Your task to perform on an android device: open device folders in google photos Image 0: 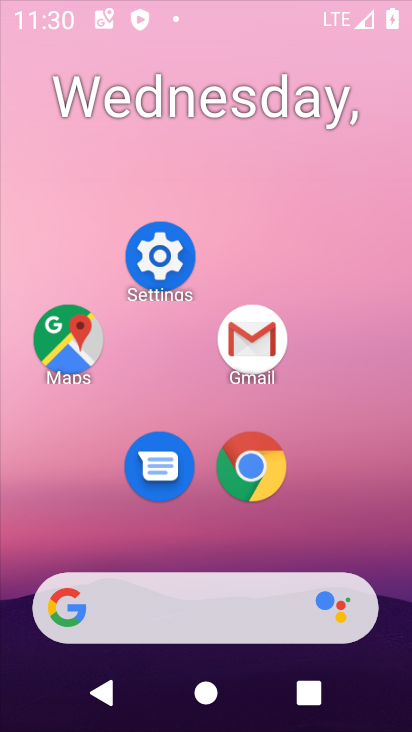
Step 0: click (265, 194)
Your task to perform on an android device: open device folders in google photos Image 1: 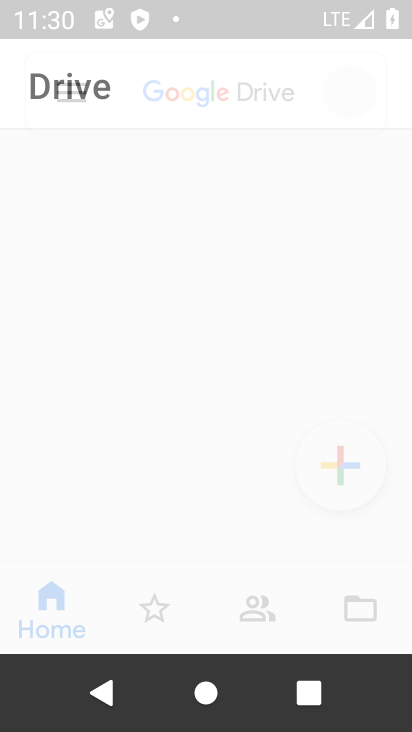
Step 1: click (166, 258)
Your task to perform on an android device: open device folders in google photos Image 2: 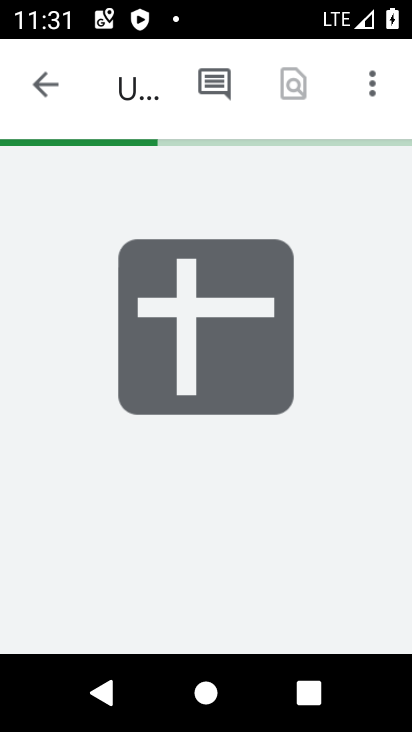
Step 2: press home button
Your task to perform on an android device: open device folders in google photos Image 3: 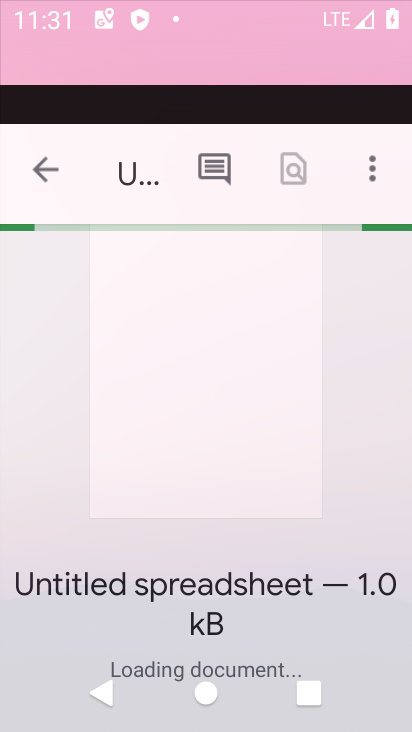
Step 3: drag from (223, 612) to (350, 240)
Your task to perform on an android device: open device folders in google photos Image 4: 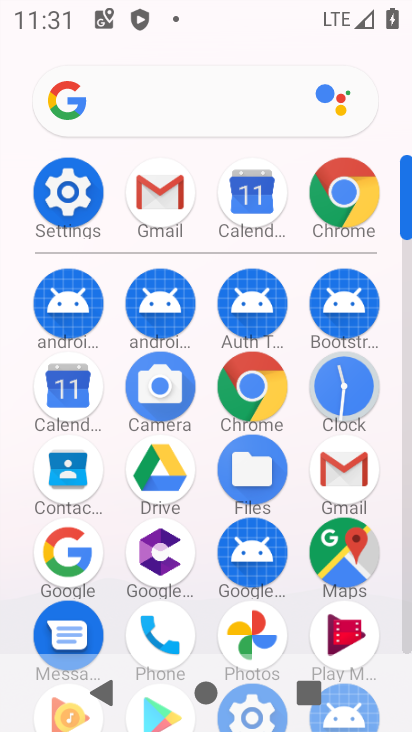
Step 4: drag from (202, 598) to (190, 241)
Your task to perform on an android device: open device folders in google photos Image 5: 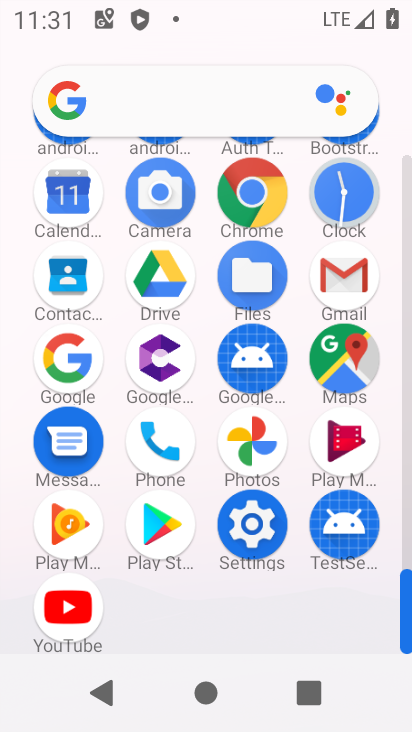
Step 5: click (248, 452)
Your task to perform on an android device: open device folders in google photos Image 6: 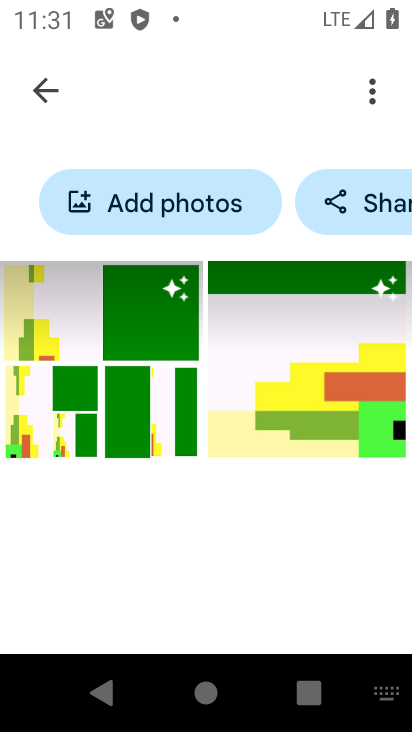
Step 6: click (63, 103)
Your task to perform on an android device: open device folders in google photos Image 7: 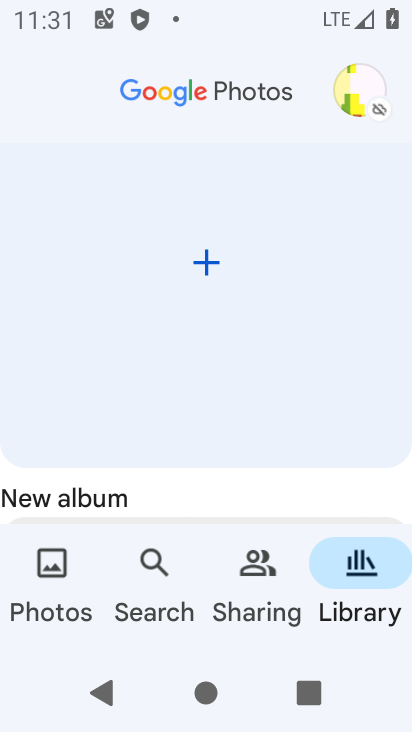
Step 7: click (374, 582)
Your task to perform on an android device: open device folders in google photos Image 8: 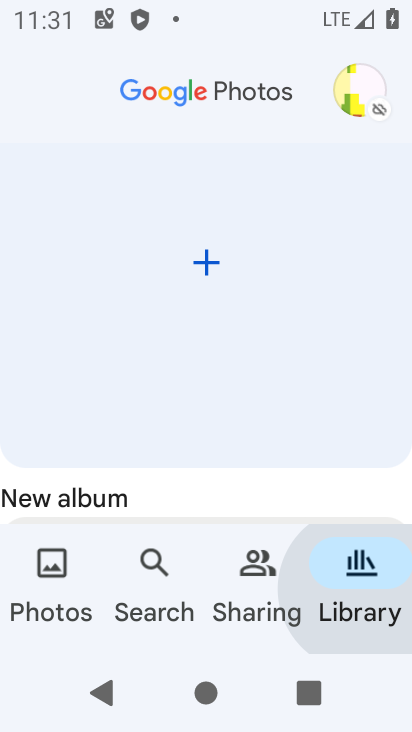
Step 8: task complete